Your task to perform on an android device: Open location settings Image 0: 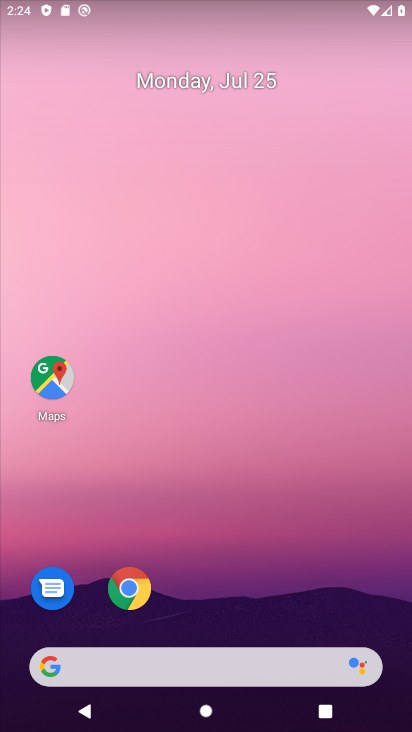
Step 0: drag from (309, 572) to (265, 69)
Your task to perform on an android device: Open location settings Image 1: 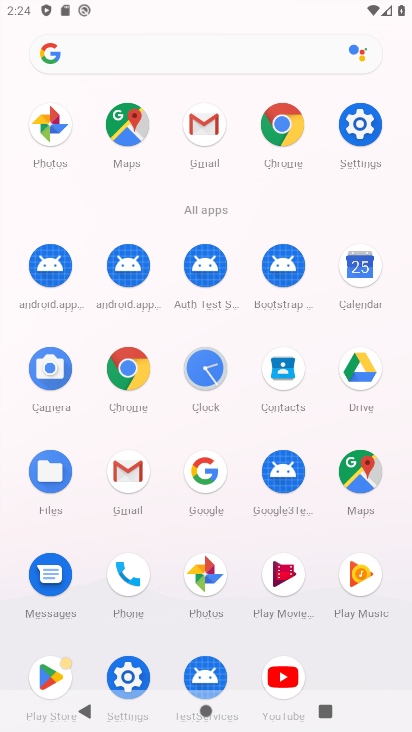
Step 1: click (352, 118)
Your task to perform on an android device: Open location settings Image 2: 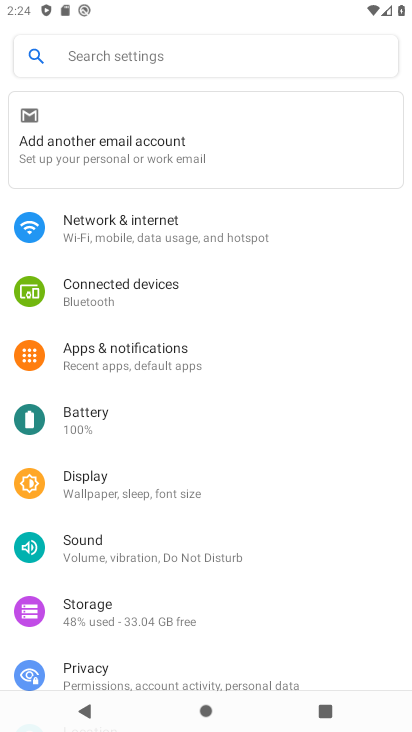
Step 2: drag from (188, 633) to (222, 207)
Your task to perform on an android device: Open location settings Image 3: 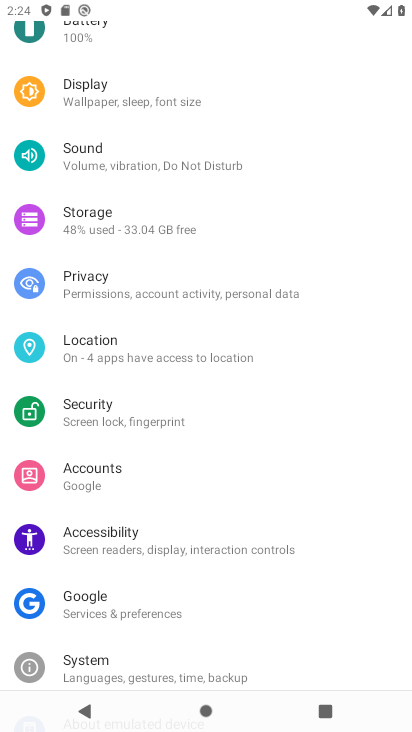
Step 3: click (128, 348)
Your task to perform on an android device: Open location settings Image 4: 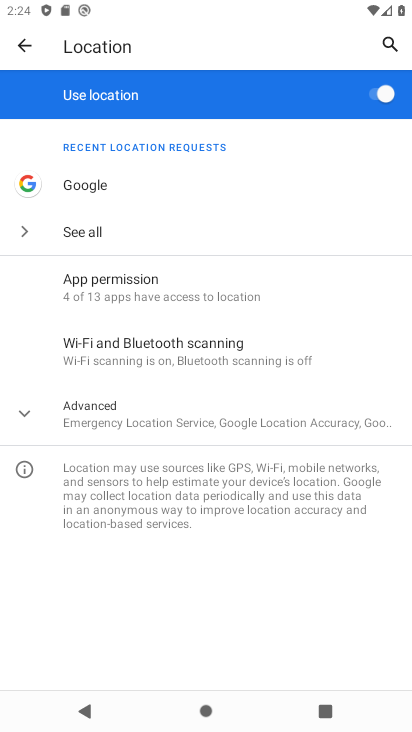
Step 4: task complete